Your task to perform on an android device: turn on the 12-hour format for clock Image 0: 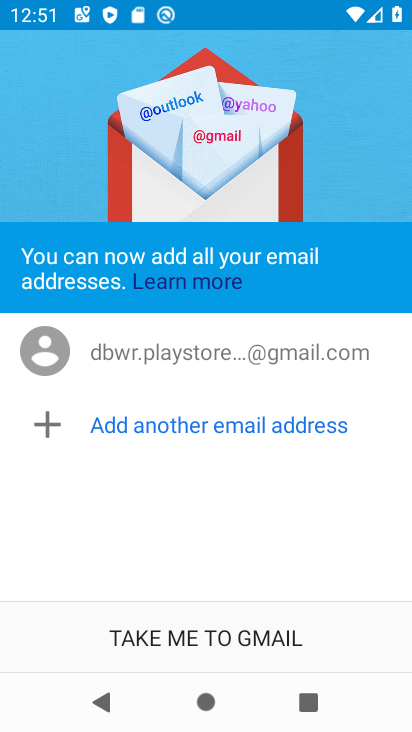
Step 0: press home button
Your task to perform on an android device: turn on the 12-hour format for clock Image 1: 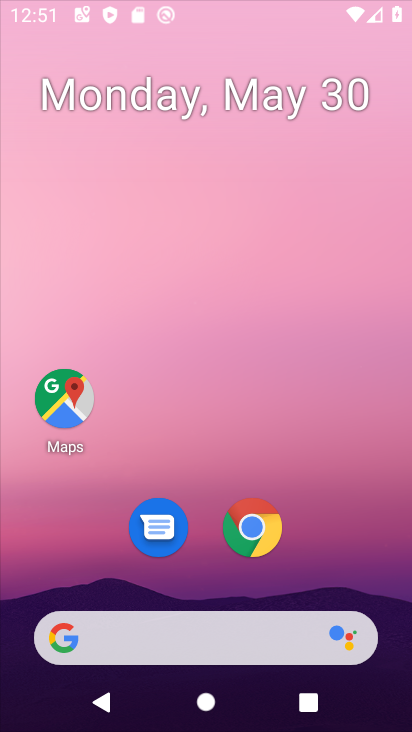
Step 1: drag from (139, 492) to (142, 310)
Your task to perform on an android device: turn on the 12-hour format for clock Image 2: 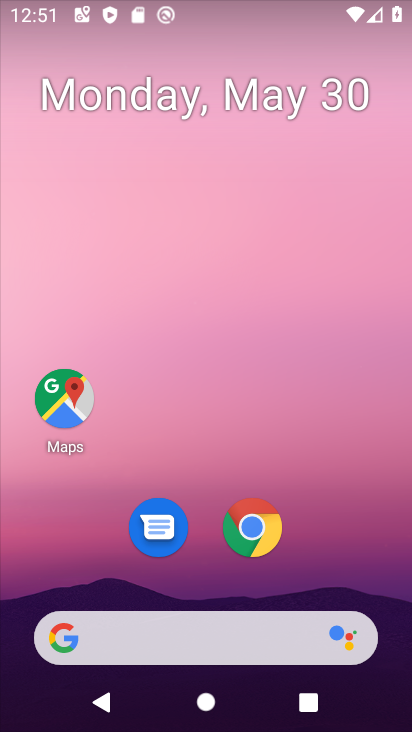
Step 2: drag from (211, 556) to (201, 194)
Your task to perform on an android device: turn on the 12-hour format for clock Image 3: 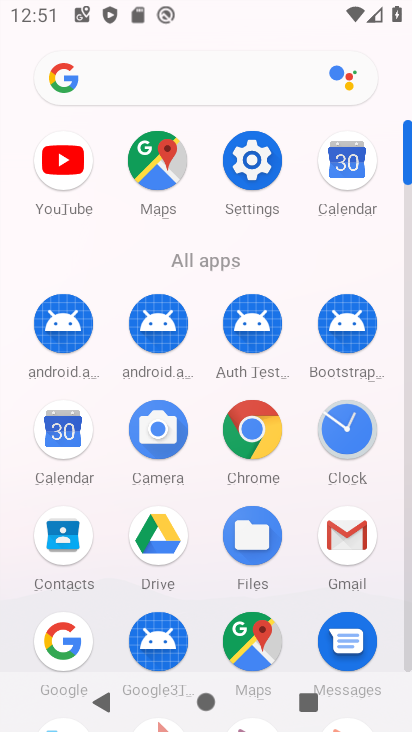
Step 3: click (349, 408)
Your task to perform on an android device: turn on the 12-hour format for clock Image 4: 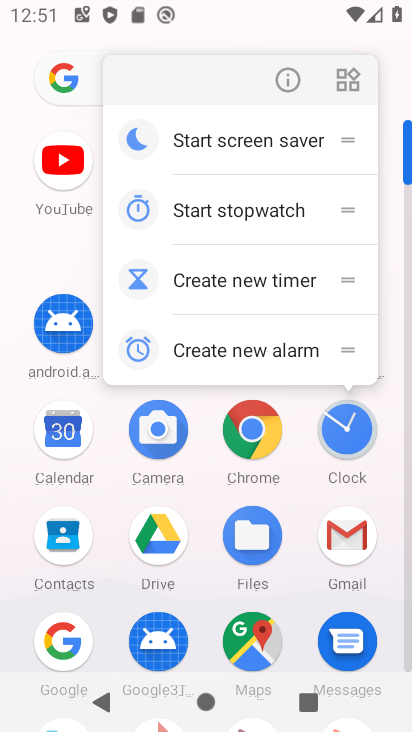
Step 4: click (284, 79)
Your task to perform on an android device: turn on the 12-hour format for clock Image 5: 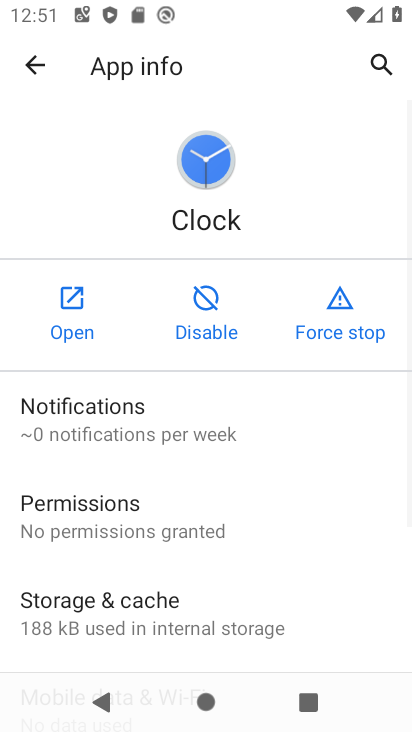
Step 5: click (36, 316)
Your task to perform on an android device: turn on the 12-hour format for clock Image 6: 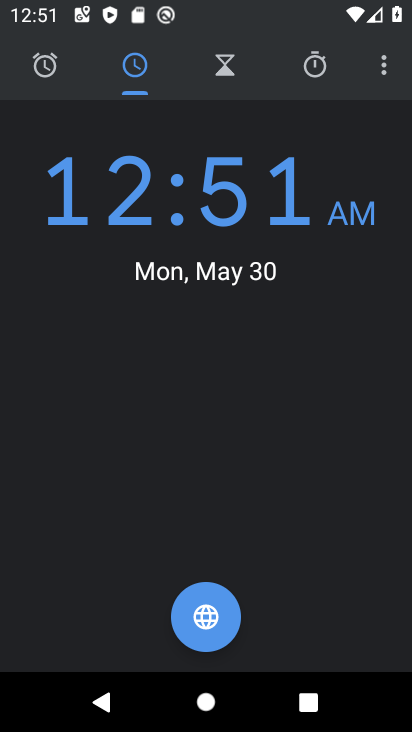
Step 6: drag from (205, 419) to (203, 203)
Your task to perform on an android device: turn on the 12-hour format for clock Image 7: 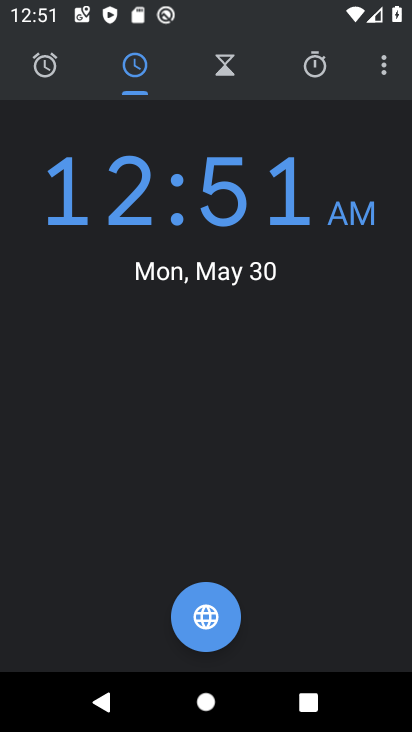
Step 7: drag from (386, 64) to (255, 128)
Your task to perform on an android device: turn on the 12-hour format for clock Image 8: 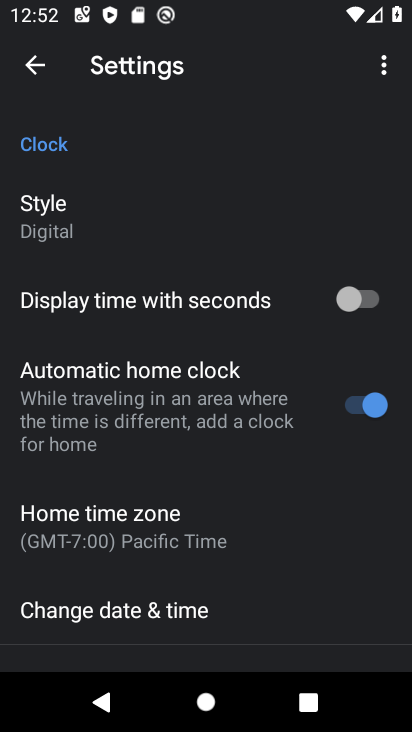
Step 8: click (163, 608)
Your task to perform on an android device: turn on the 12-hour format for clock Image 9: 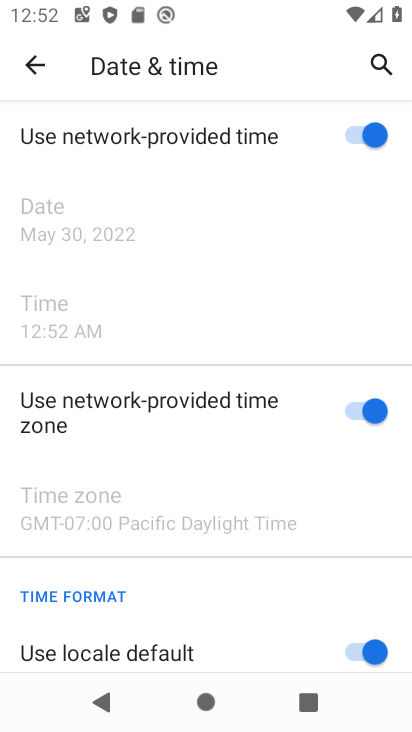
Step 9: task complete